Your task to perform on an android device: Go to Wikipedia Image 0: 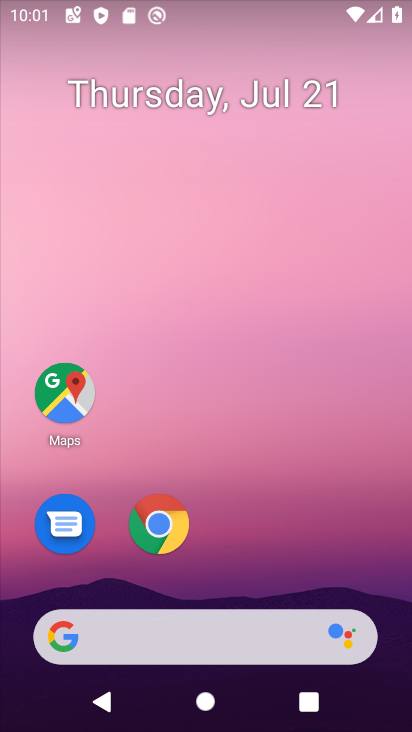
Step 0: click (158, 534)
Your task to perform on an android device: Go to Wikipedia Image 1: 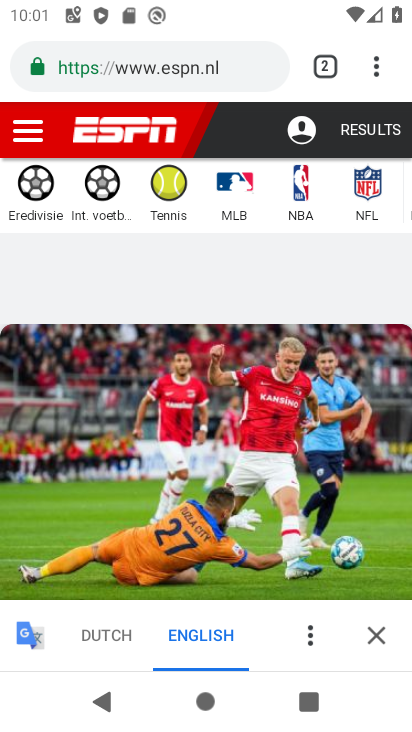
Step 1: drag from (376, 75) to (133, 128)
Your task to perform on an android device: Go to Wikipedia Image 2: 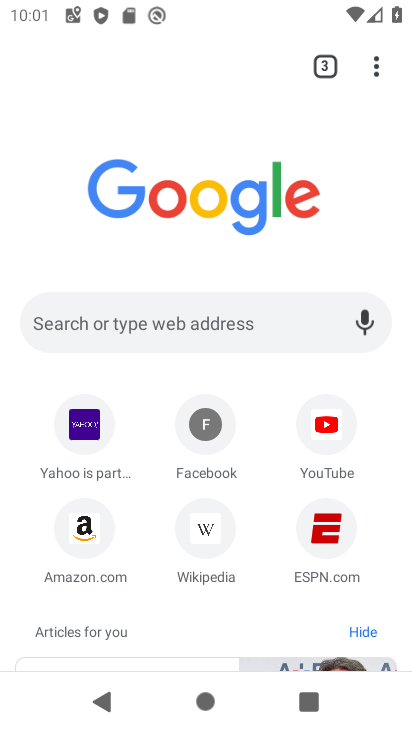
Step 2: click (188, 553)
Your task to perform on an android device: Go to Wikipedia Image 3: 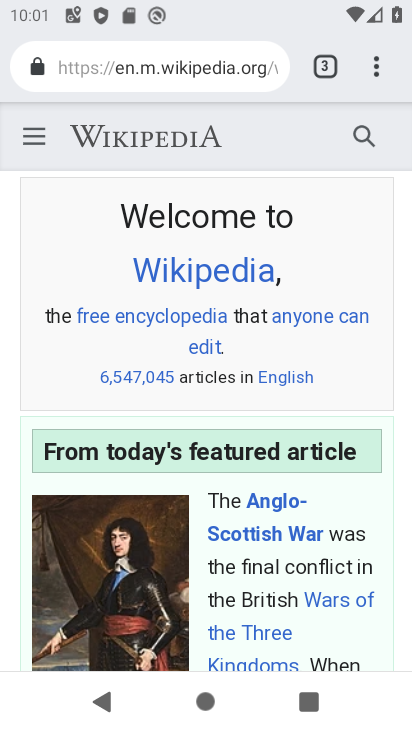
Step 3: task complete